Your task to perform on an android device: What's the news in Laos? Image 0: 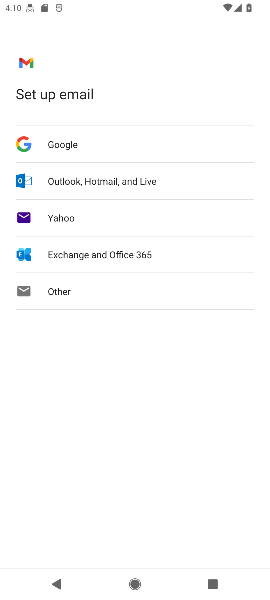
Step 0: press home button
Your task to perform on an android device: What's the news in Laos? Image 1: 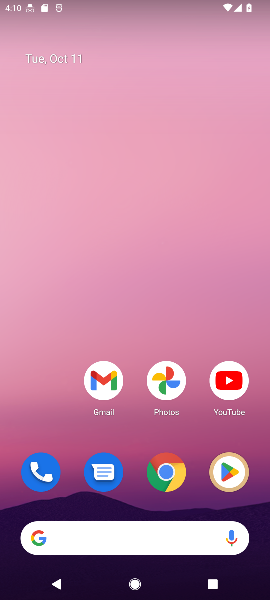
Step 1: click (161, 463)
Your task to perform on an android device: What's the news in Laos? Image 2: 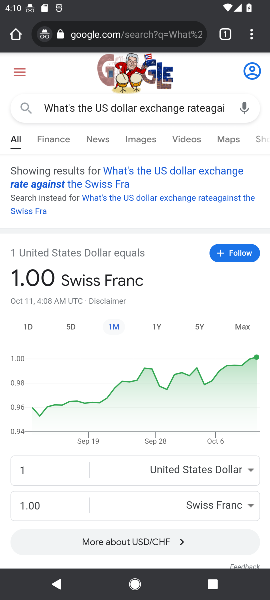
Step 2: click (112, 39)
Your task to perform on an android device: What's the news in Laos? Image 3: 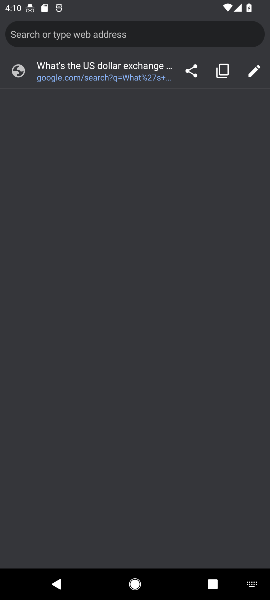
Step 3: type "What's the news in Laos?"
Your task to perform on an android device: What's the news in Laos? Image 4: 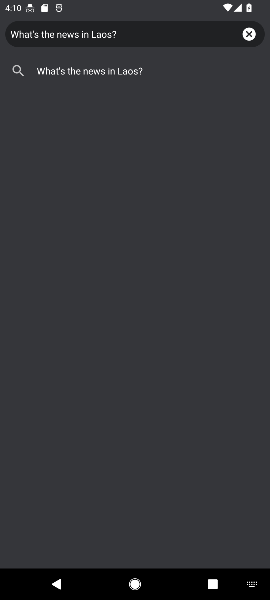
Step 4: click (98, 66)
Your task to perform on an android device: What's the news in Laos? Image 5: 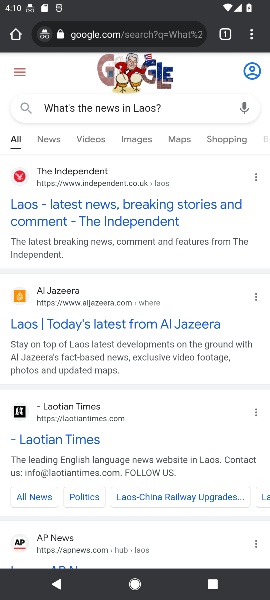
Step 5: click (54, 134)
Your task to perform on an android device: What's the news in Laos? Image 6: 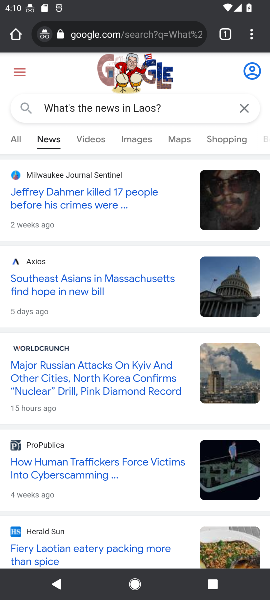
Step 6: task complete